Your task to perform on an android device: check google app version Image 0: 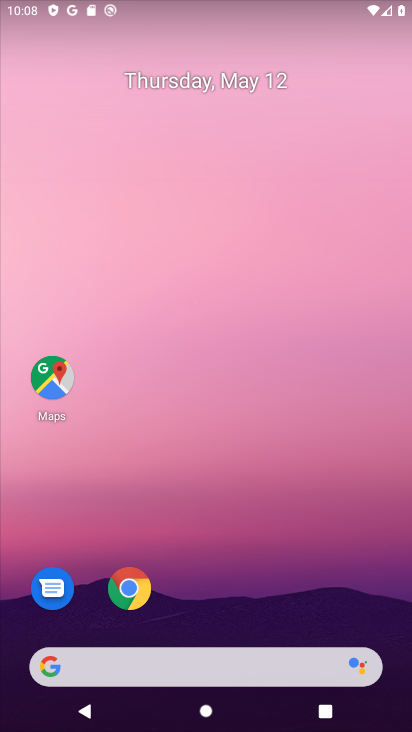
Step 0: drag from (144, 645) to (171, 259)
Your task to perform on an android device: check google app version Image 1: 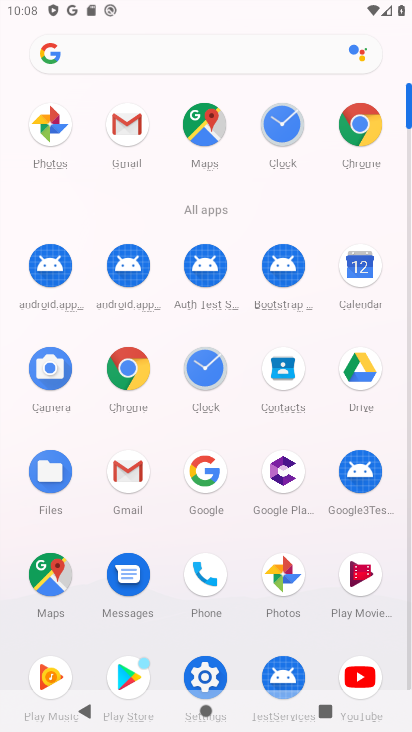
Step 1: click (196, 474)
Your task to perform on an android device: check google app version Image 2: 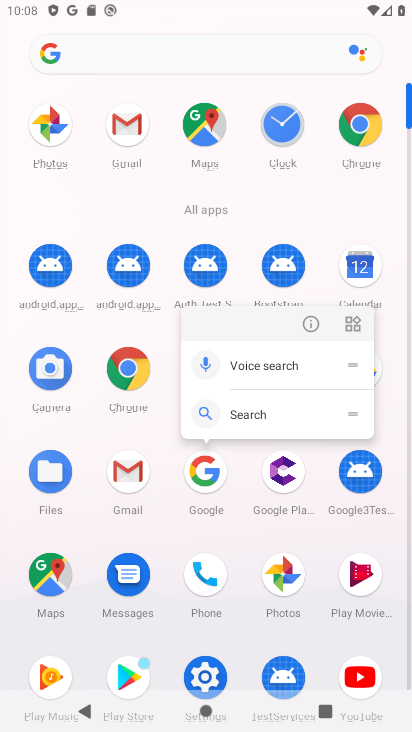
Step 2: click (315, 322)
Your task to perform on an android device: check google app version Image 3: 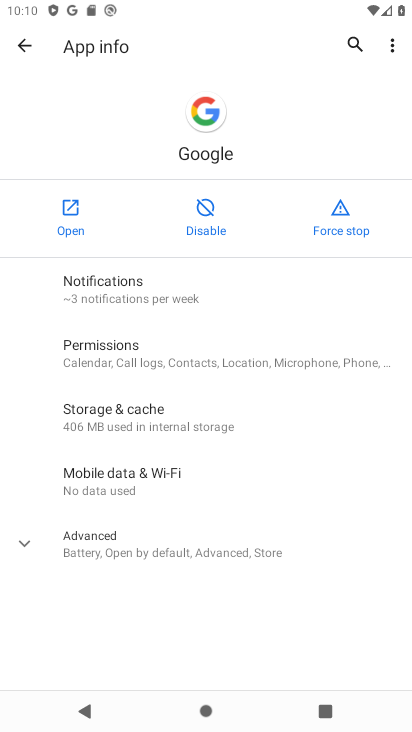
Step 3: task complete